Your task to perform on an android device: Open internet settings Image 0: 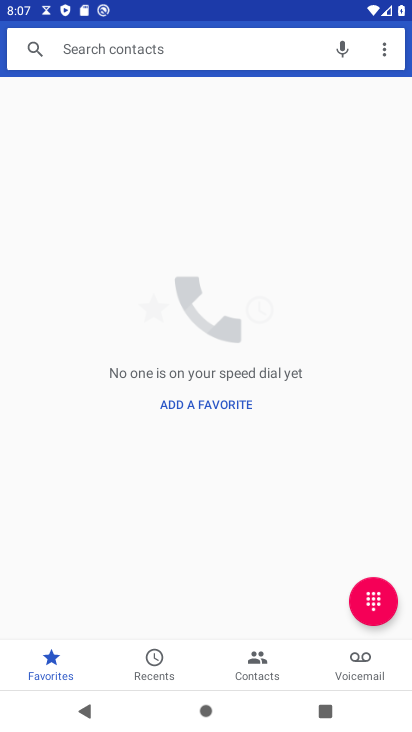
Step 0: press home button
Your task to perform on an android device: Open internet settings Image 1: 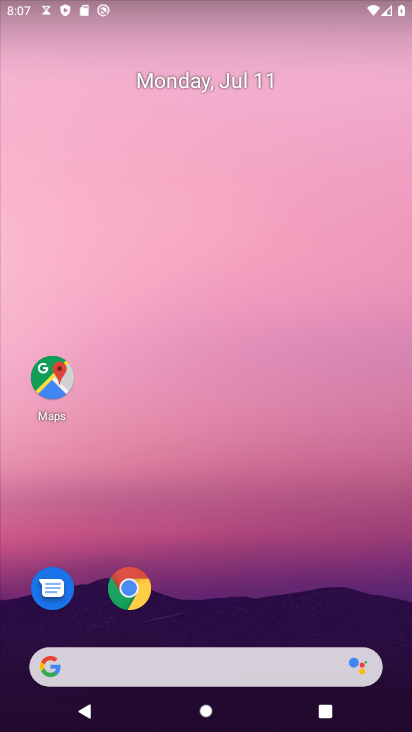
Step 1: drag from (272, 606) to (270, 222)
Your task to perform on an android device: Open internet settings Image 2: 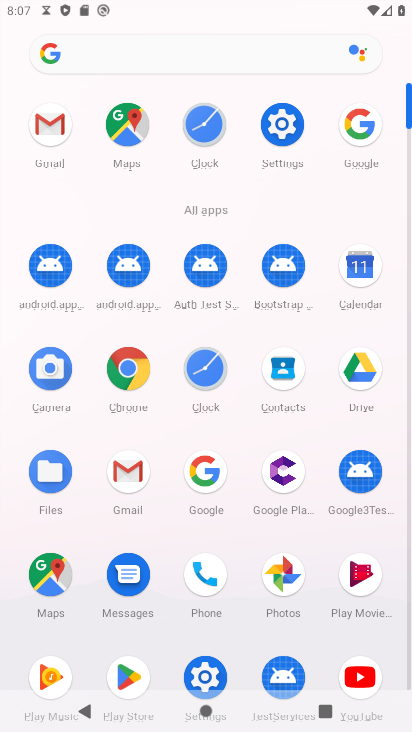
Step 2: click (278, 133)
Your task to perform on an android device: Open internet settings Image 3: 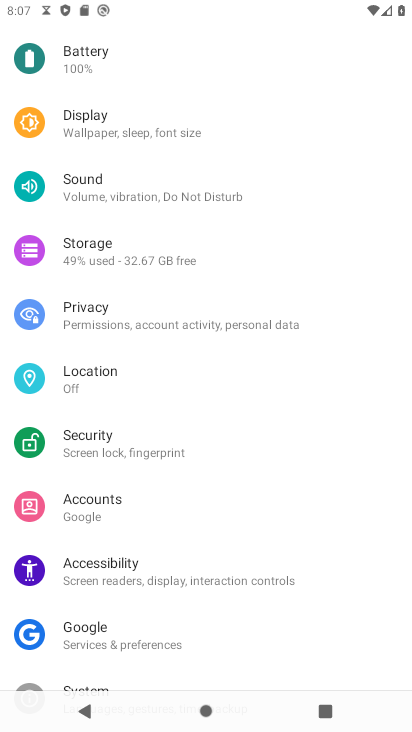
Step 3: drag from (186, 525) to (140, 650)
Your task to perform on an android device: Open internet settings Image 4: 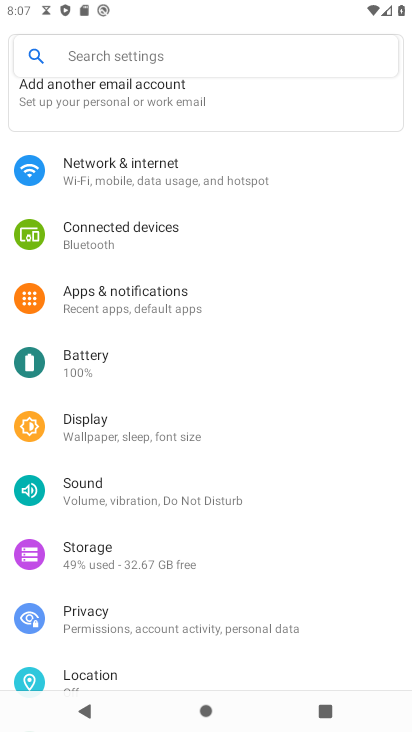
Step 4: click (118, 179)
Your task to perform on an android device: Open internet settings Image 5: 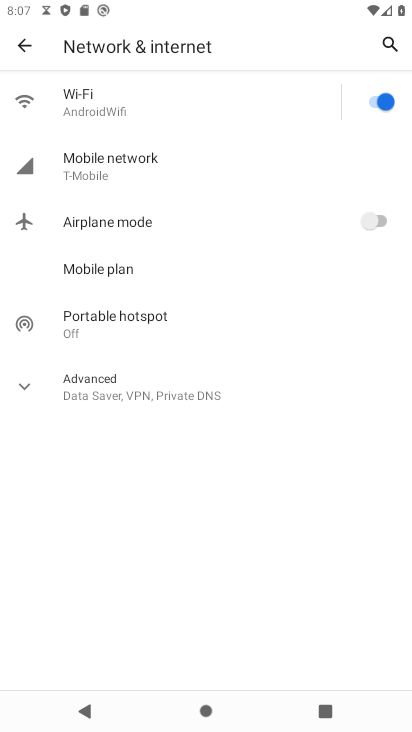
Step 5: task complete